Your task to perform on an android device: Go to Yahoo.com Image 0: 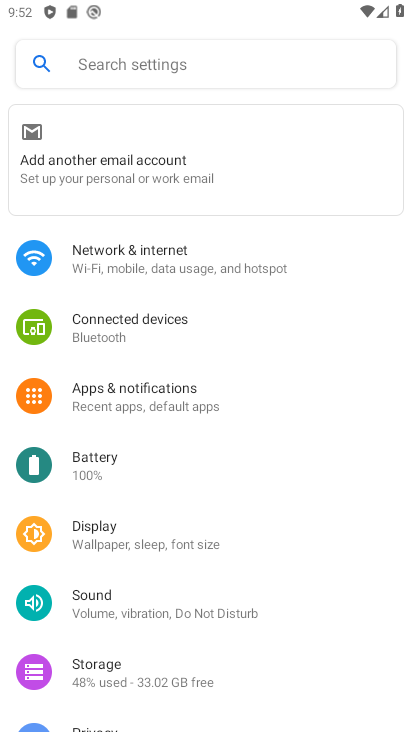
Step 0: press home button
Your task to perform on an android device: Go to Yahoo.com Image 1: 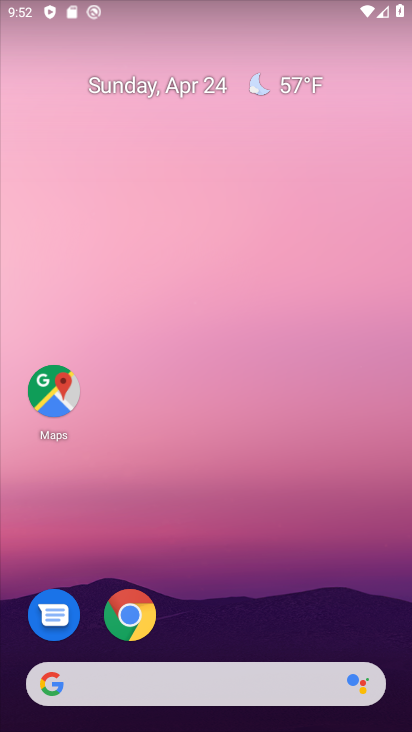
Step 1: click (129, 615)
Your task to perform on an android device: Go to Yahoo.com Image 2: 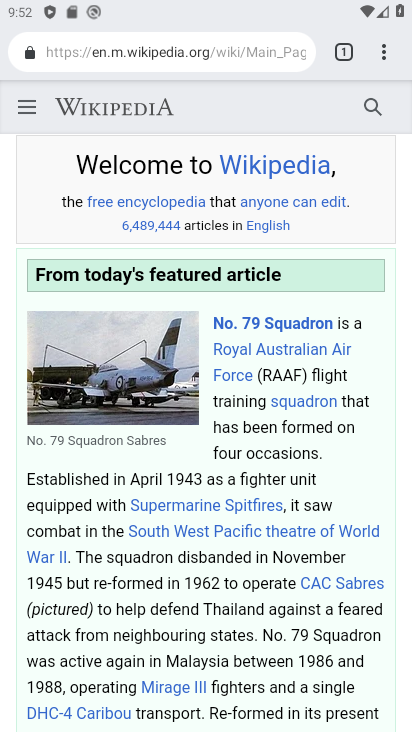
Step 2: click (133, 50)
Your task to perform on an android device: Go to Yahoo.com Image 3: 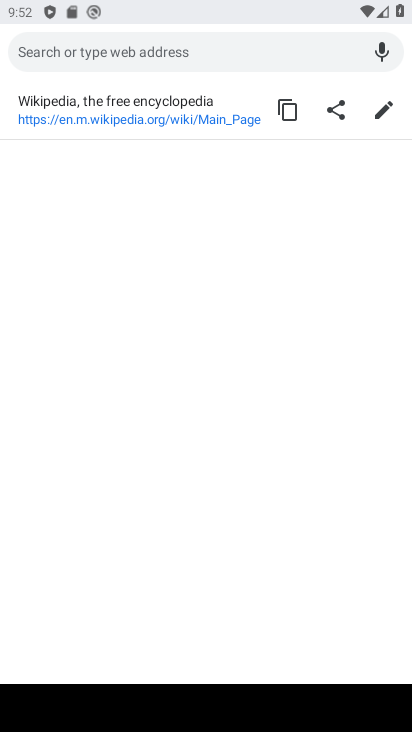
Step 3: type "yahoo.com"
Your task to perform on an android device: Go to Yahoo.com Image 4: 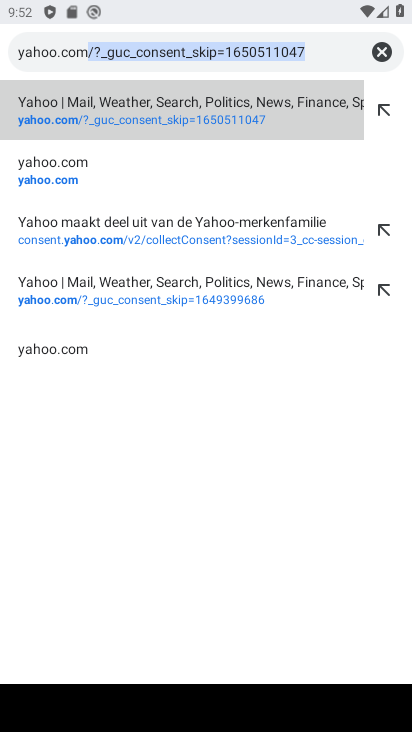
Step 4: click (68, 112)
Your task to perform on an android device: Go to Yahoo.com Image 5: 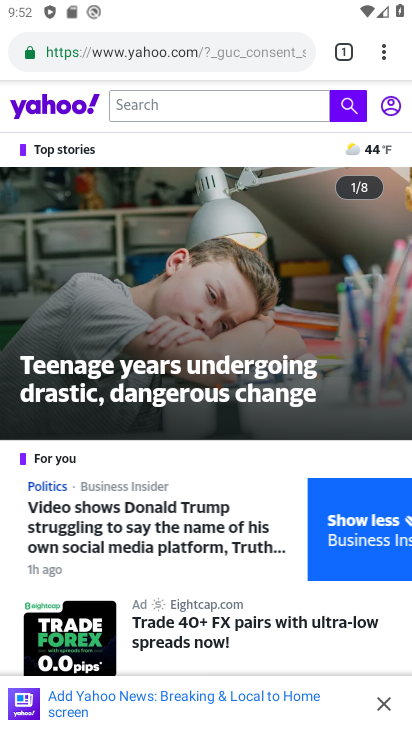
Step 5: task complete